Your task to perform on an android device: clear all cookies in the chrome app Image 0: 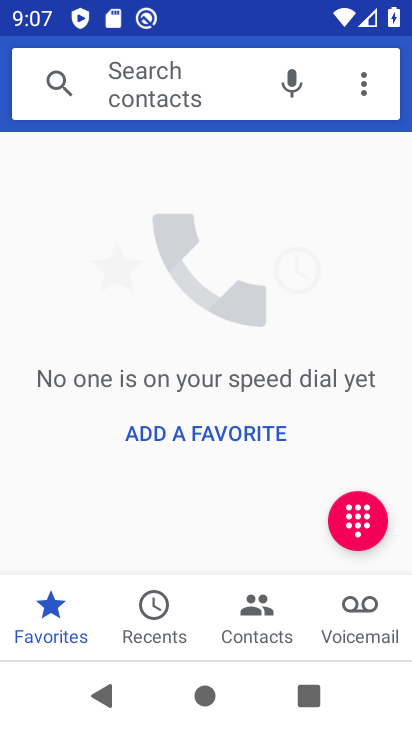
Step 0: press back button
Your task to perform on an android device: clear all cookies in the chrome app Image 1: 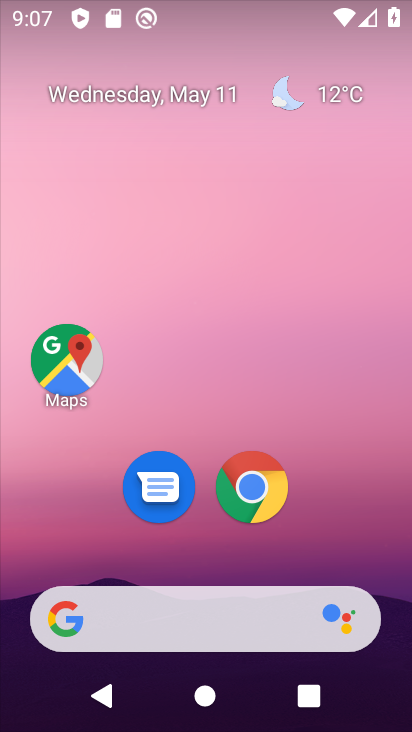
Step 1: click (253, 484)
Your task to perform on an android device: clear all cookies in the chrome app Image 2: 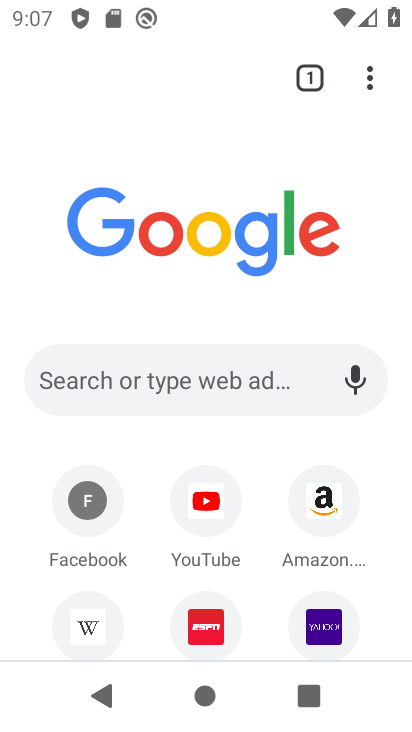
Step 2: click (372, 76)
Your task to perform on an android device: clear all cookies in the chrome app Image 3: 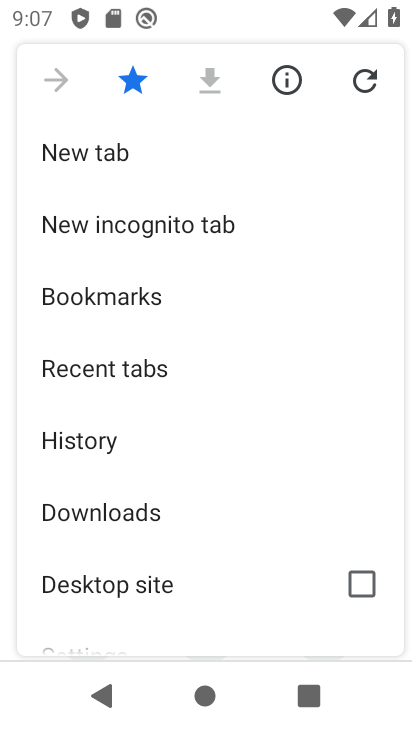
Step 3: drag from (166, 538) to (221, 375)
Your task to perform on an android device: clear all cookies in the chrome app Image 4: 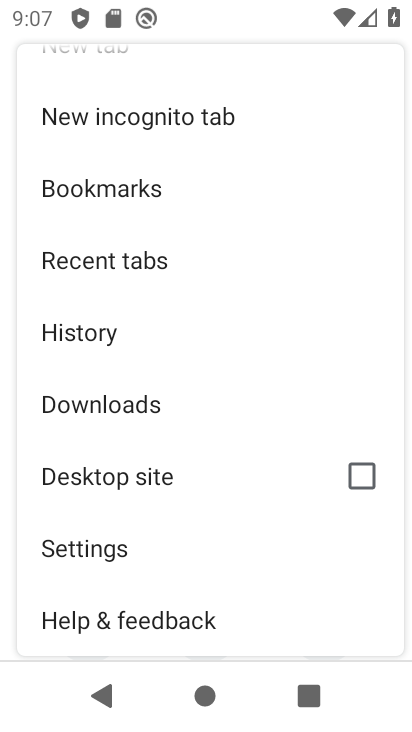
Step 4: drag from (142, 519) to (231, 374)
Your task to perform on an android device: clear all cookies in the chrome app Image 5: 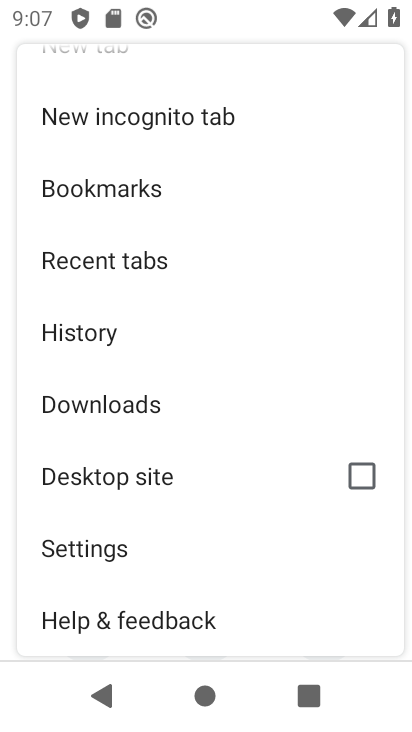
Step 5: click (88, 548)
Your task to perform on an android device: clear all cookies in the chrome app Image 6: 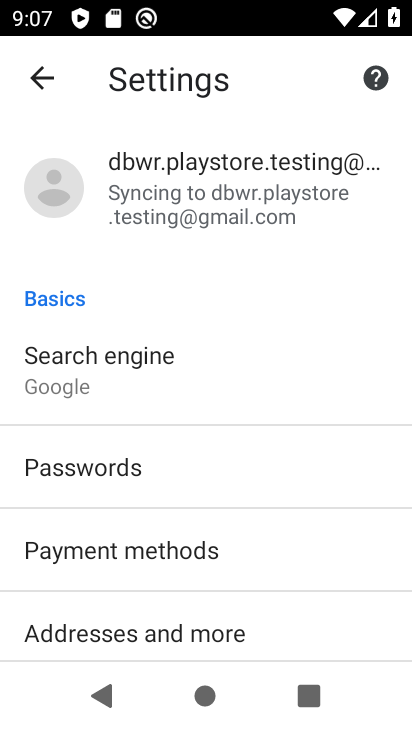
Step 6: drag from (241, 559) to (264, 386)
Your task to perform on an android device: clear all cookies in the chrome app Image 7: 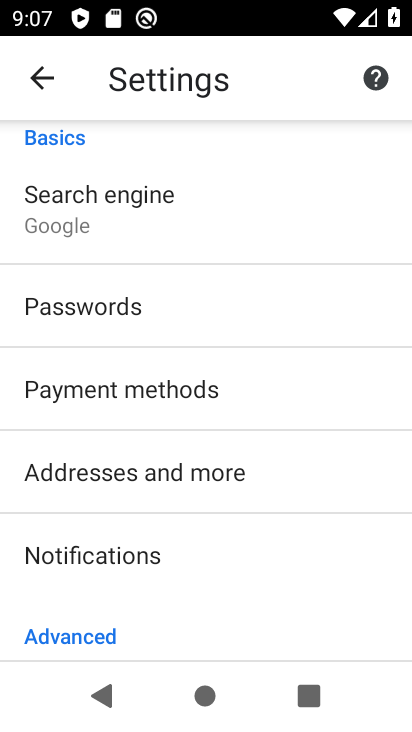
Step 7: drag from (209, 554) to (243, 427)
Your task to perform on an android device: clear all cookies in the chrome app Image 8: 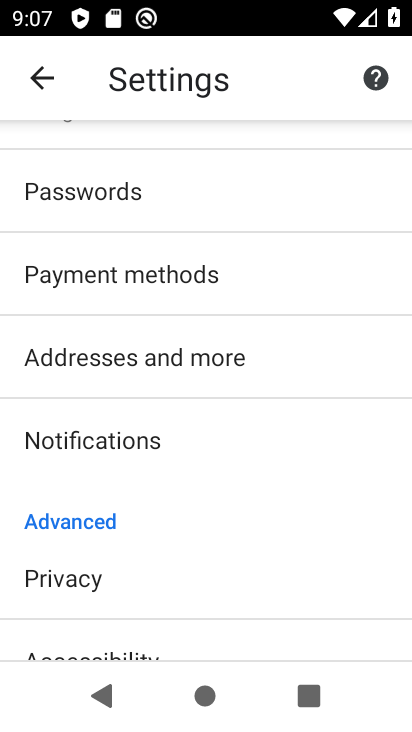
Step 8: drag from (172, 556) to (235, 404)
Your task to perform on an android device: clear all cookies in the chrome app Image 9: 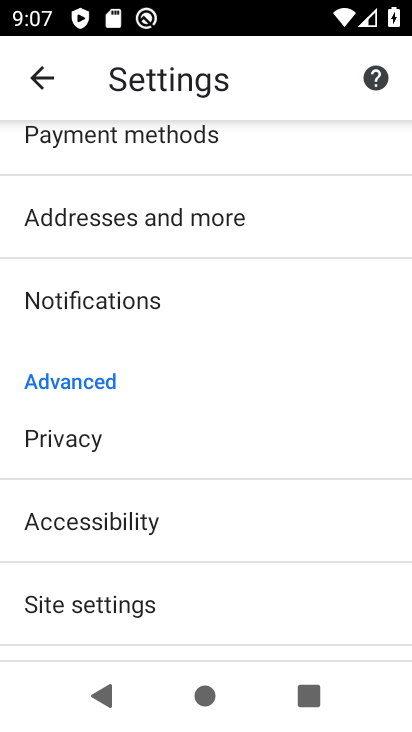
Step 9: drag from (167, 574) to (244, 428)
Your task to perform on an android device: clear all cookies in the chrome app Image 10: 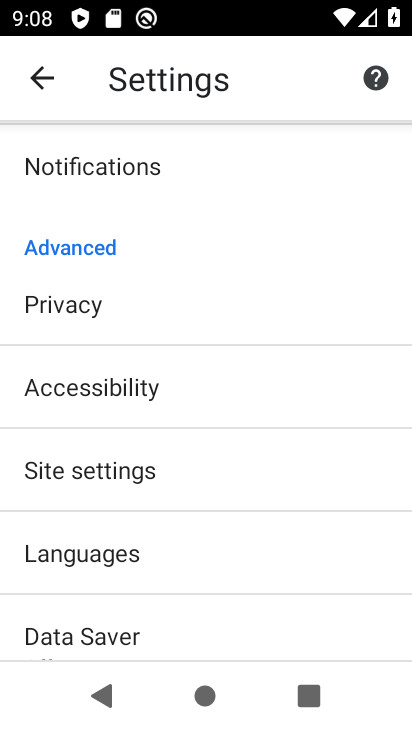
Step 10: click (96, 313)
Your task to perform on an android device: clear all cookies in the chrome app Image 11: 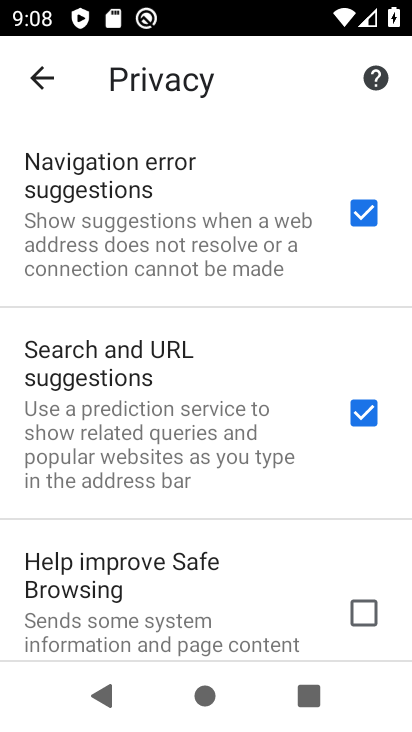
Step 11: drag from (196, 595) to (270, 465)
Your task to perform on an android device: clear all cookies in the chrome app Image 12: 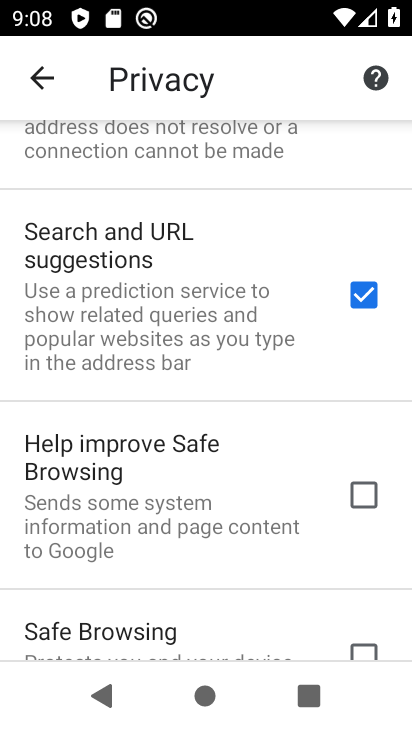
Step 12: drag from (198, 616) to (293, 412)
Your task to perform on an android device: clear all cookies in the chrome app Image 13: 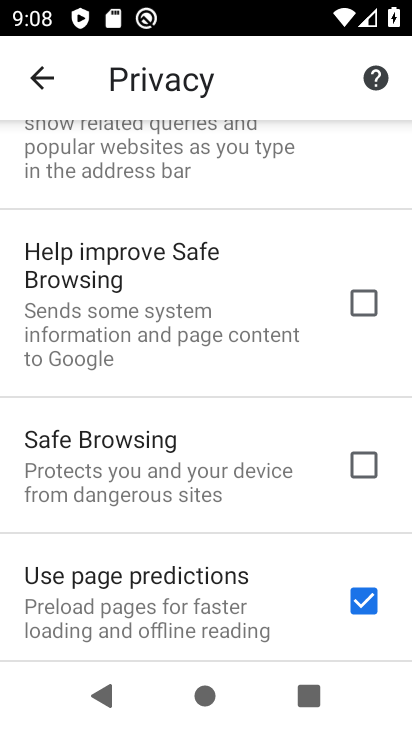
Step 13: drag from (193, 560) to (270, 403)
Your task to perform on an android device: clear all cookies in the chrome app Image 14: 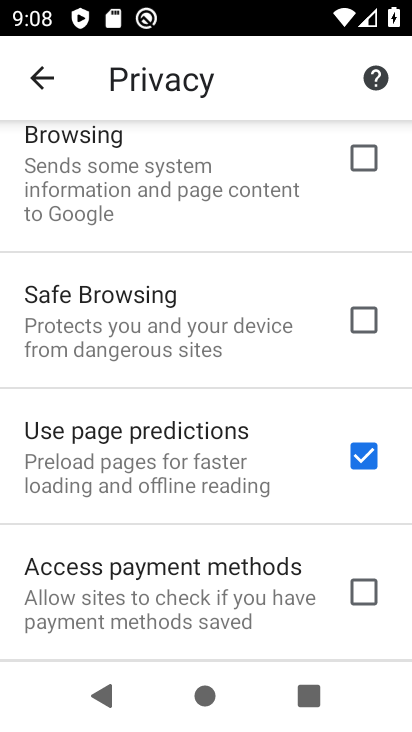
Step 14: drag from (171, 547) to (262, 371)
Your task to perform on an android device: clear all cookies in the chrome app Image 15: 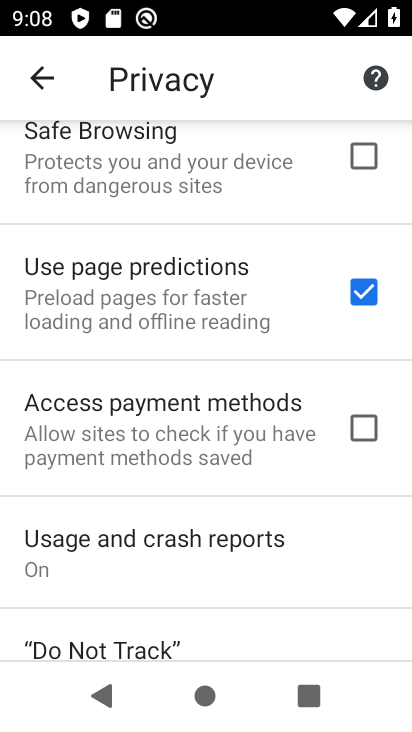
Step 15: drag from (151, 569) to (249, 379)
Your task to perform on an android device: clear all cookies in the chrome app Image 16: 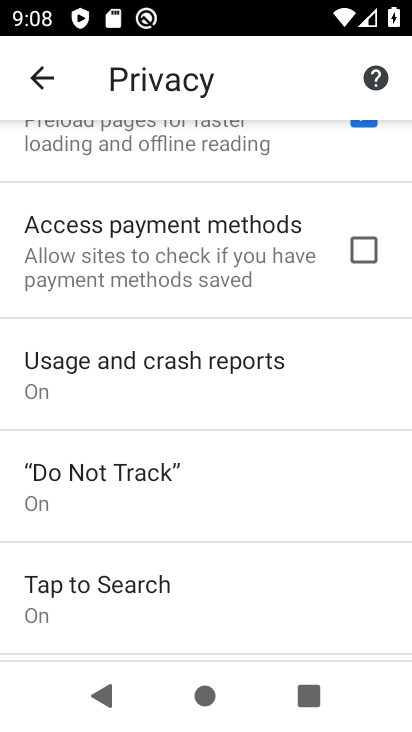
Step 16: drag from (104, 615) to (222, 393)
Your task to perform on an android device: clear all cookies in the chrome app Image 17: 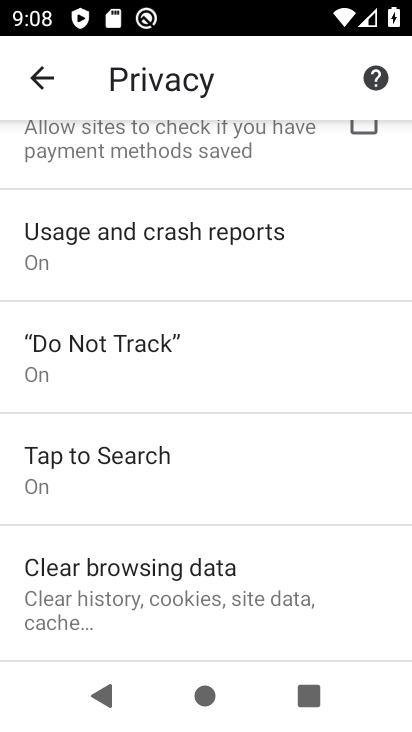
Step 17: click (148, 581)
Your task to perform on an android device: clear all cookies in the chrome app Image 18: 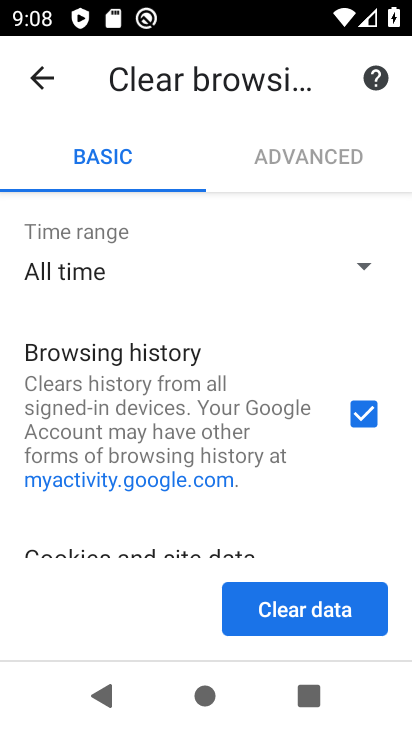
Step 18: click (366, 409)
Your task to perform on an android device: clear all cookies in the chrome app Image 19: 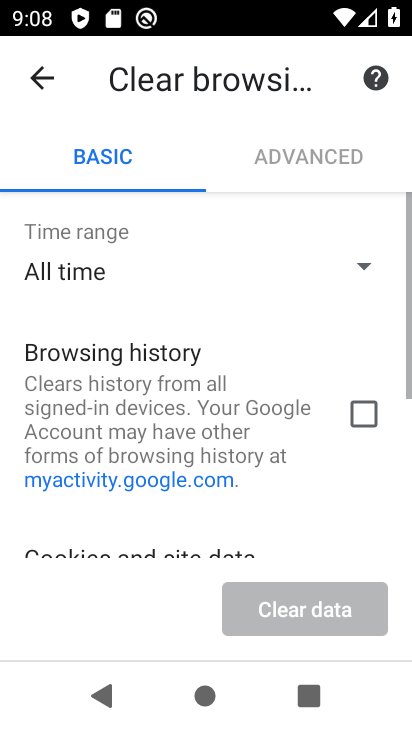
Step 19: drag from (229, 337) to (241, 207)
Your task to perform on an android device: clear all cookies in the chrome app Image 20: 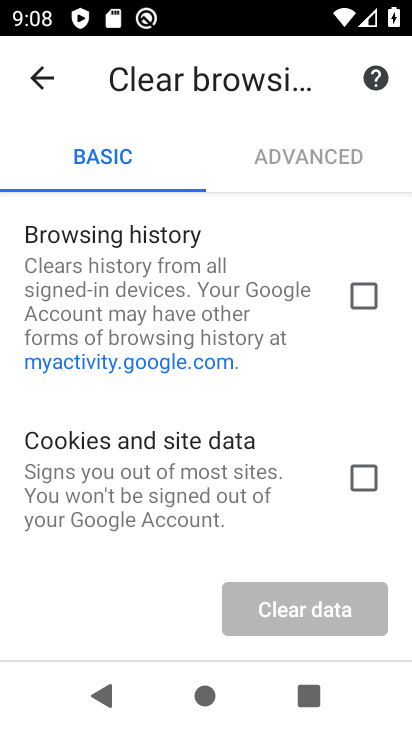
Step 20: click (364, 478)
Your task to perform on an android device: clear all cookies in the chrome app Image 21: 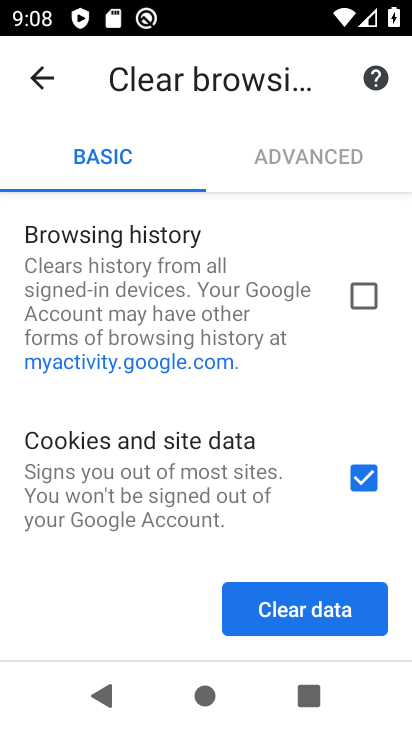
Step 21: click (309, 614)
Your task to perform on an android device: clear all cookies in the chrome app Image 22: 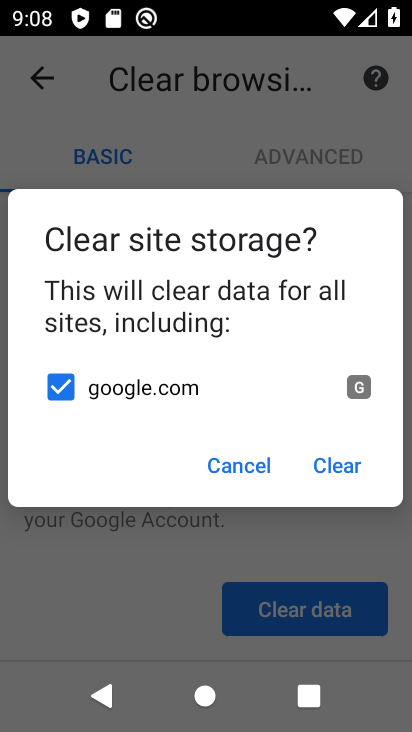
Step 22: click (344, 464)
Your task to perform on an android device: clear all cookies in the chrome app Image 23: 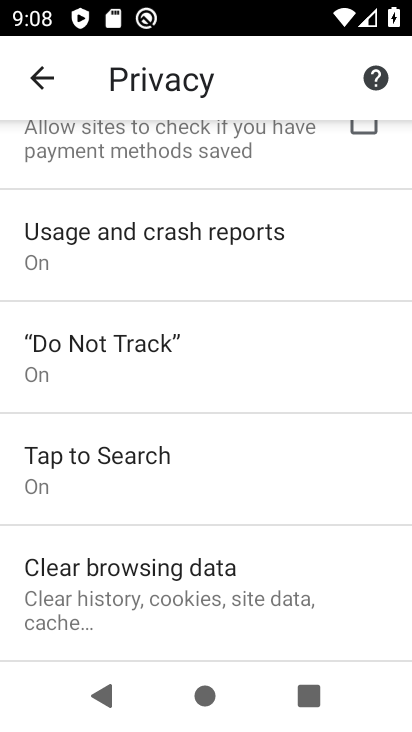
Step 23: task complete